Your task to perform on an android device: turn on improve location accuracy Image 0: 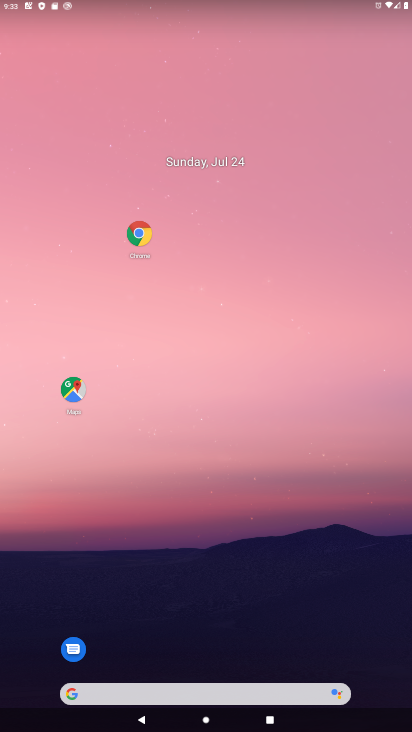
Step 0: drag from (185, 548) to (203, 35)
Your task to perform on an android device: turn on improve location accuracy Image 1: 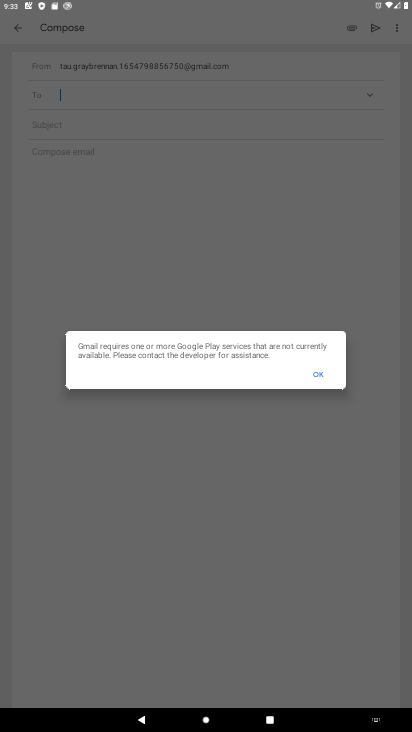
Step 1: press home button
Your task to perform on an android device: turn on improve location accuracy Image 2: 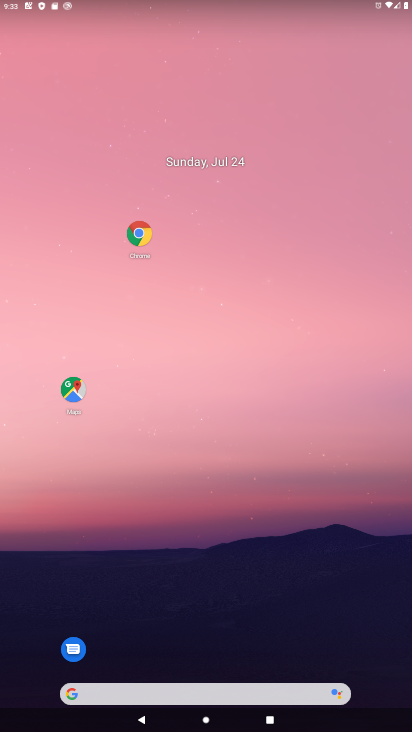
Step 2: drag from (202, 599) to (180, 57)
Your task to perform on an android device: turn on improve location accuracy Image 3: 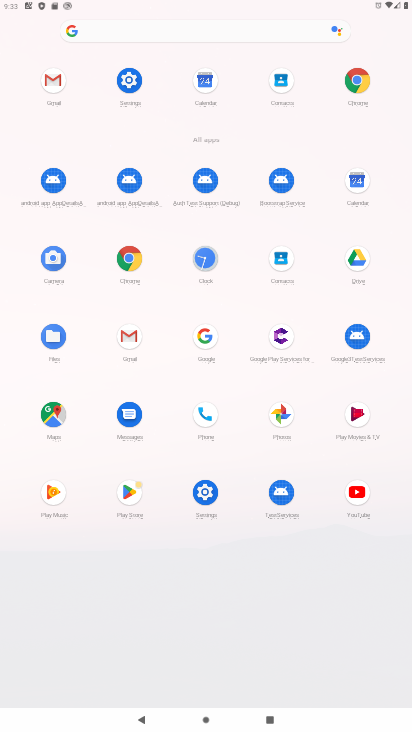
Step 3: click (126, 83)
Your task to perform on an android device: turn on improve location accuracy Image 4: 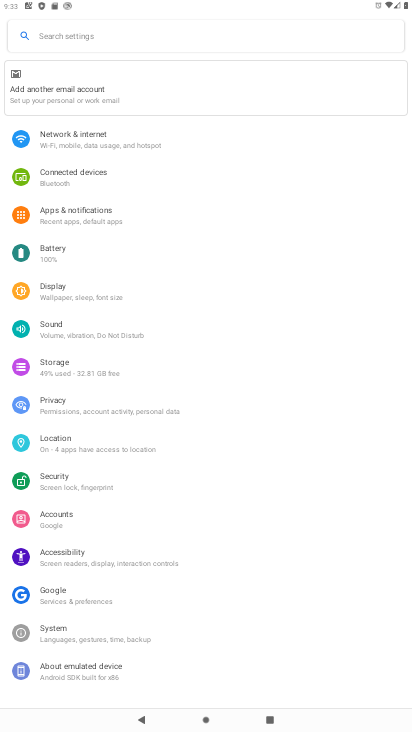
Step 4: click (50, 440)
Your task to perform on an android device: turn on improve location accuracy Image 5: 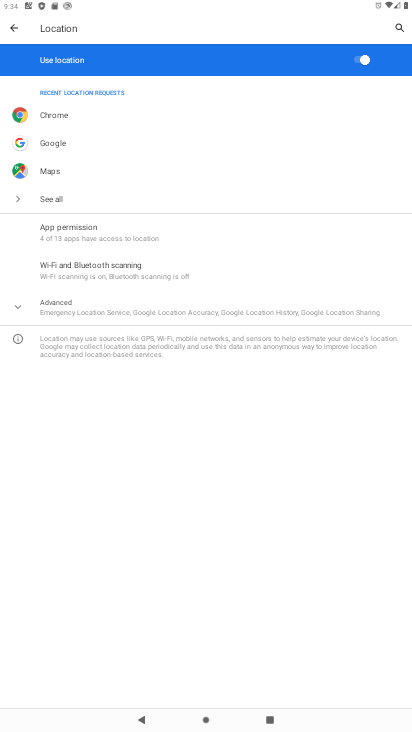
Step 5: click (72, 326)
Your task to perform on an android device: turn on improve location accuracy Image 6: 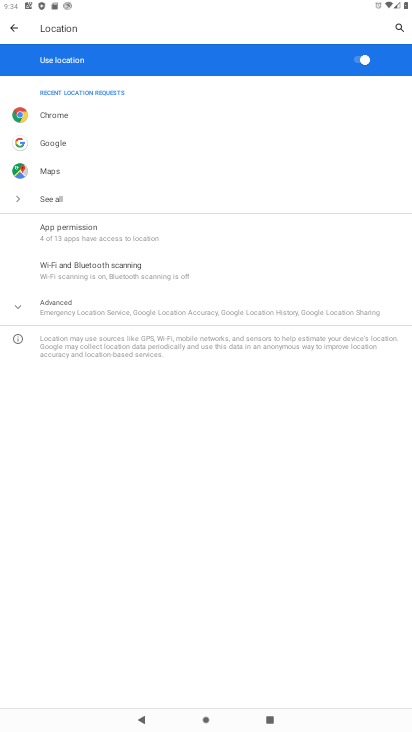
Step 6: click (64, 312)
Your task to perform on an android device: turn on improve location accuracy Image 7: 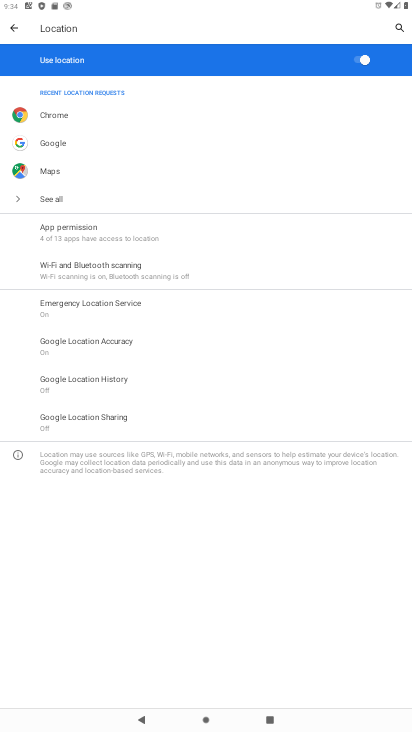
Step 7: click (75, 340)
Your task to perform on an android device: turn on improve location accuracy Image 8: 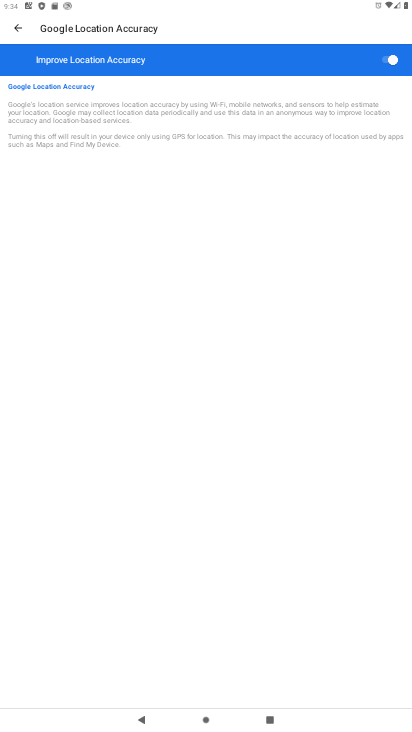
Step 8: task complete